Your task to perform on an android device: check out phone information Image 0: 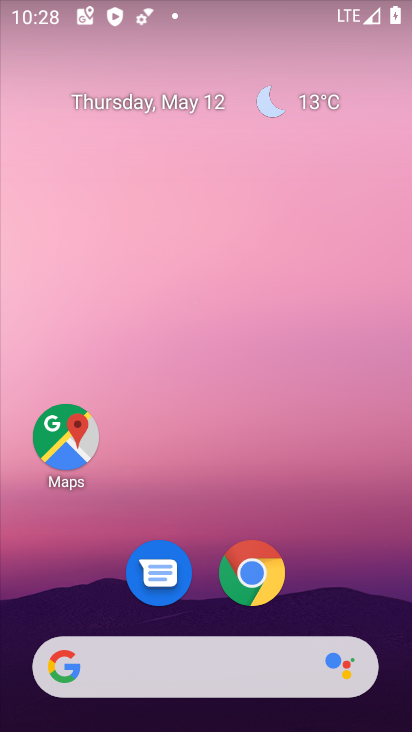
Step 0: drag from (217, 614) to (410, 277)
Your task to perform on an android device: check out phone information Image 1: 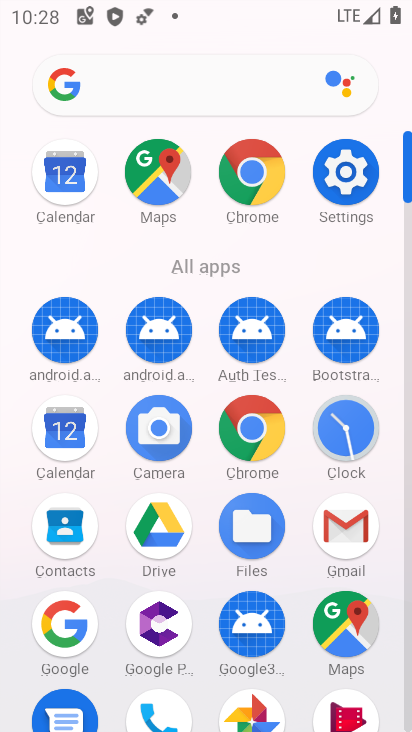
Step 1: click (353, 174)
Your task to perform on an android device: check out phone information Image 2: 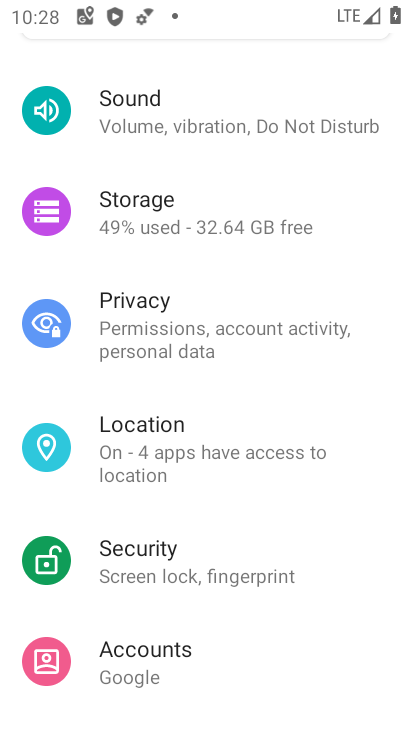
Step 2: drag from (257, 557) to (154, 8)
Your task to perform on an android device: check out phone information Image 3: 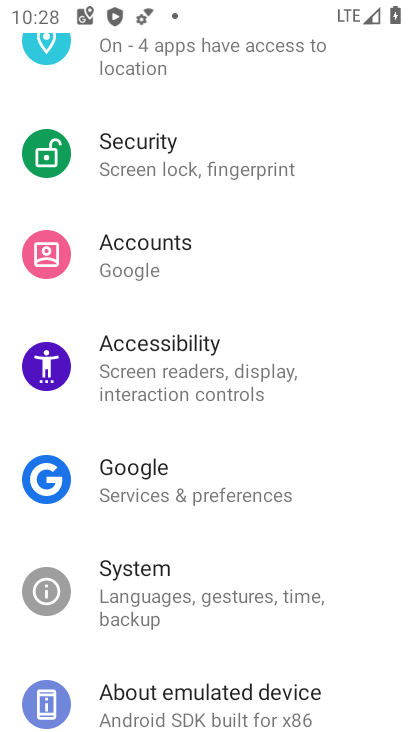
Step 3: drag from (261, 602) to (211, 84)
Your task to perform on an android device: check out phone information Image 4: 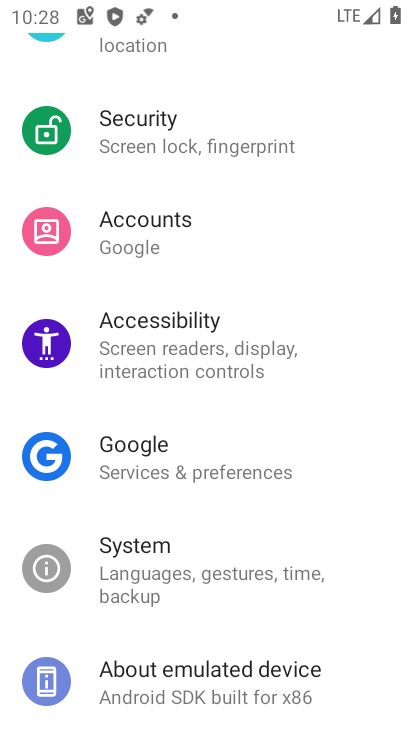
Step 4: click (142, 668)
Your task to perform on an android device: check out phone information Image 5: 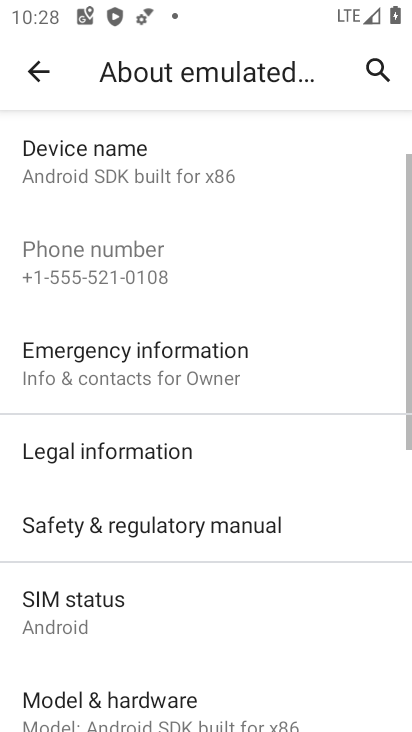
Step 5: task complete